Your task to perform on an android device: open app "Reddit" (install if not already installed) and go to login screen Image 0: 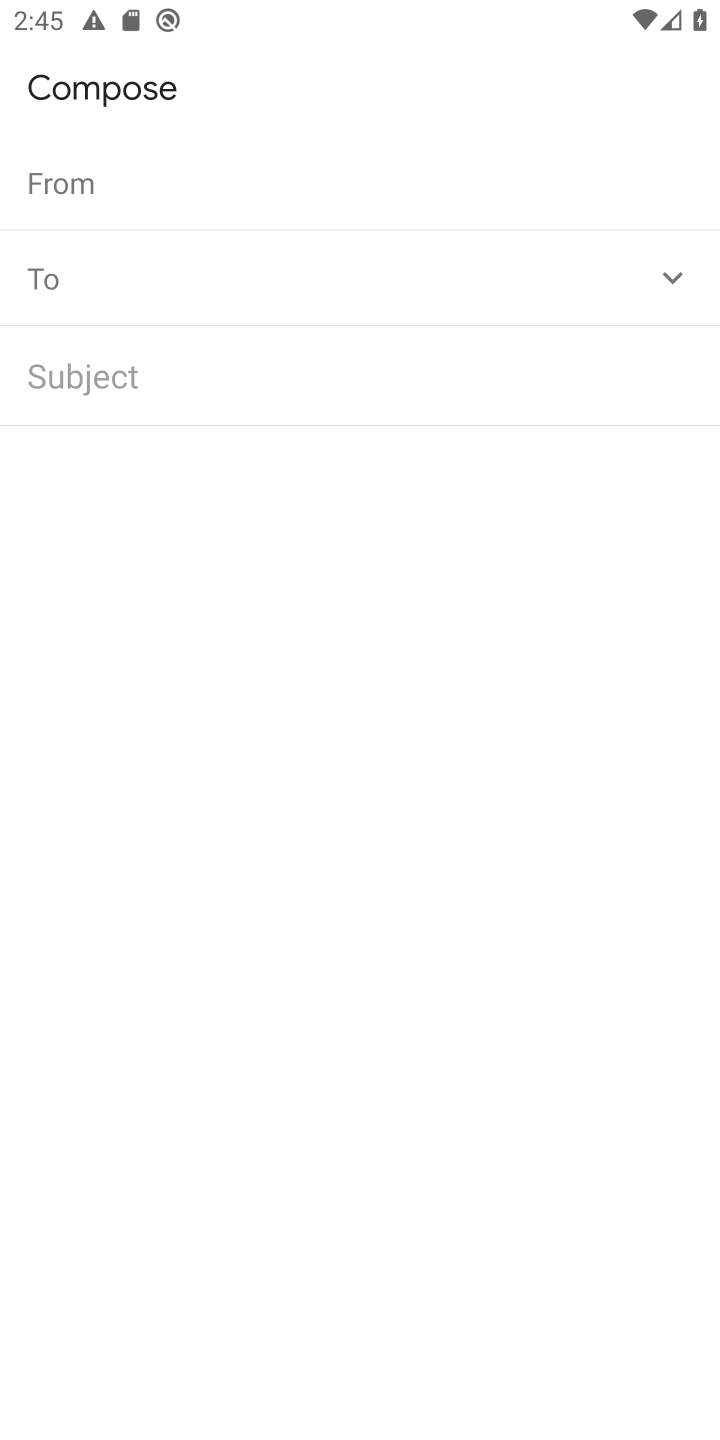
Step 0: click (519, 90)
Your task to perform on an android device: open app "Reddit" (install if not already installed) and go to login screen Image 1: 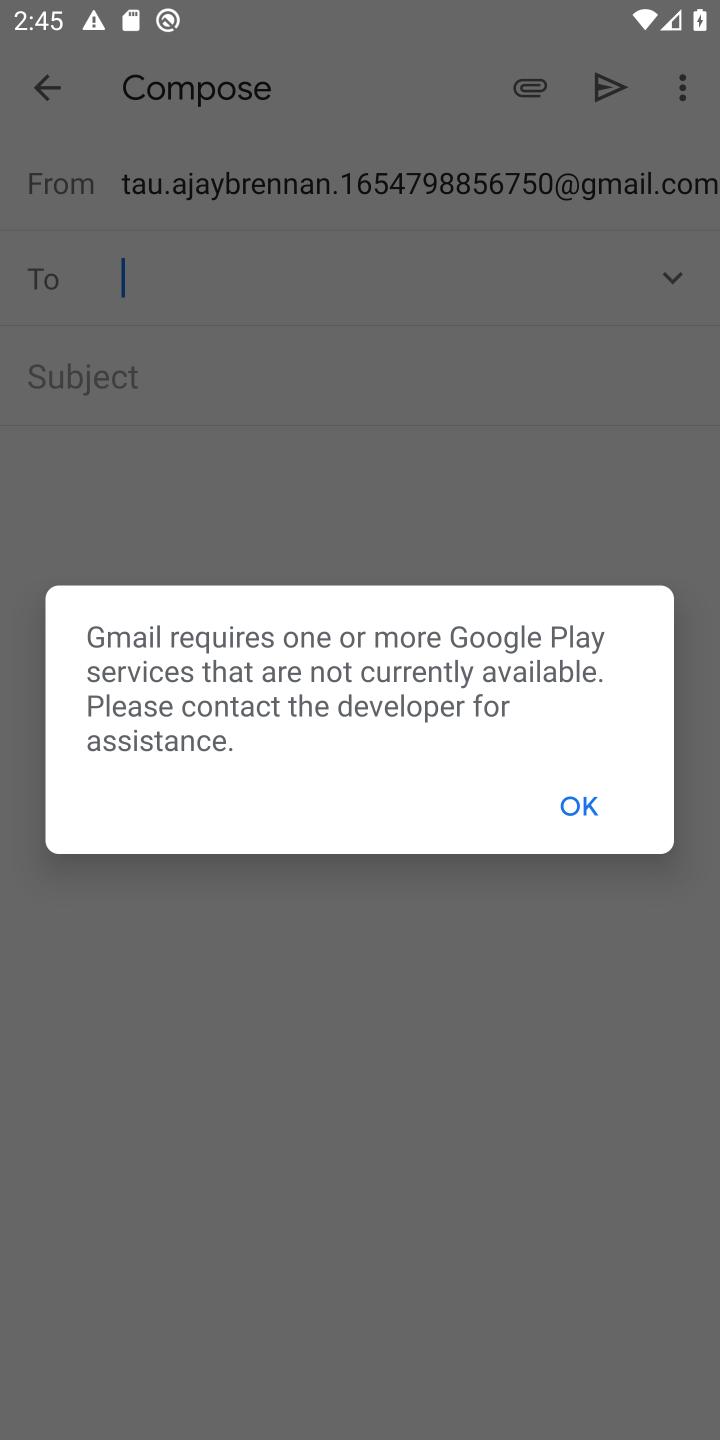
Step 1: press home button
Your task to perform on an android device: open app "Reddit" (install if not already installed) and go to login screen Image 2: 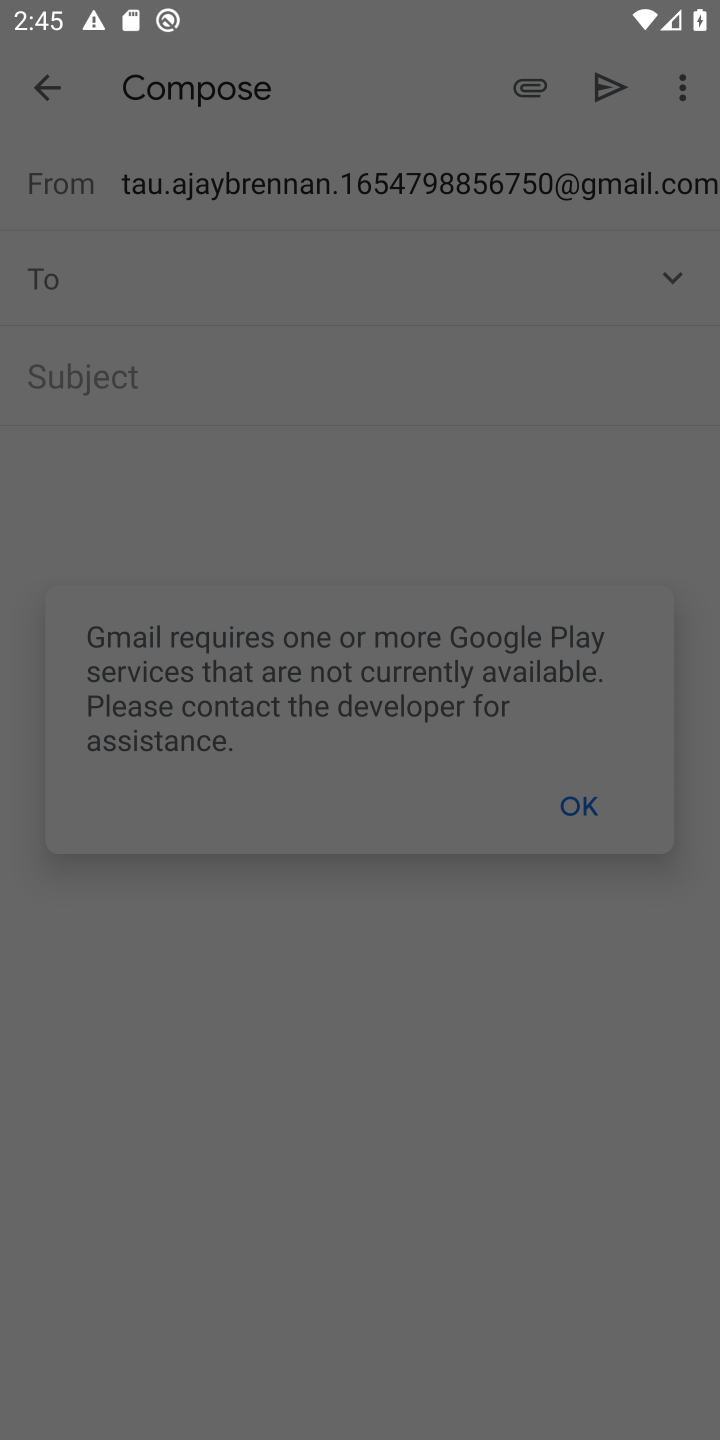
Step 2: press home button
Your task to perform on an android device: open app "Reddit" (install if not already installed) and go to login screen Image 3: 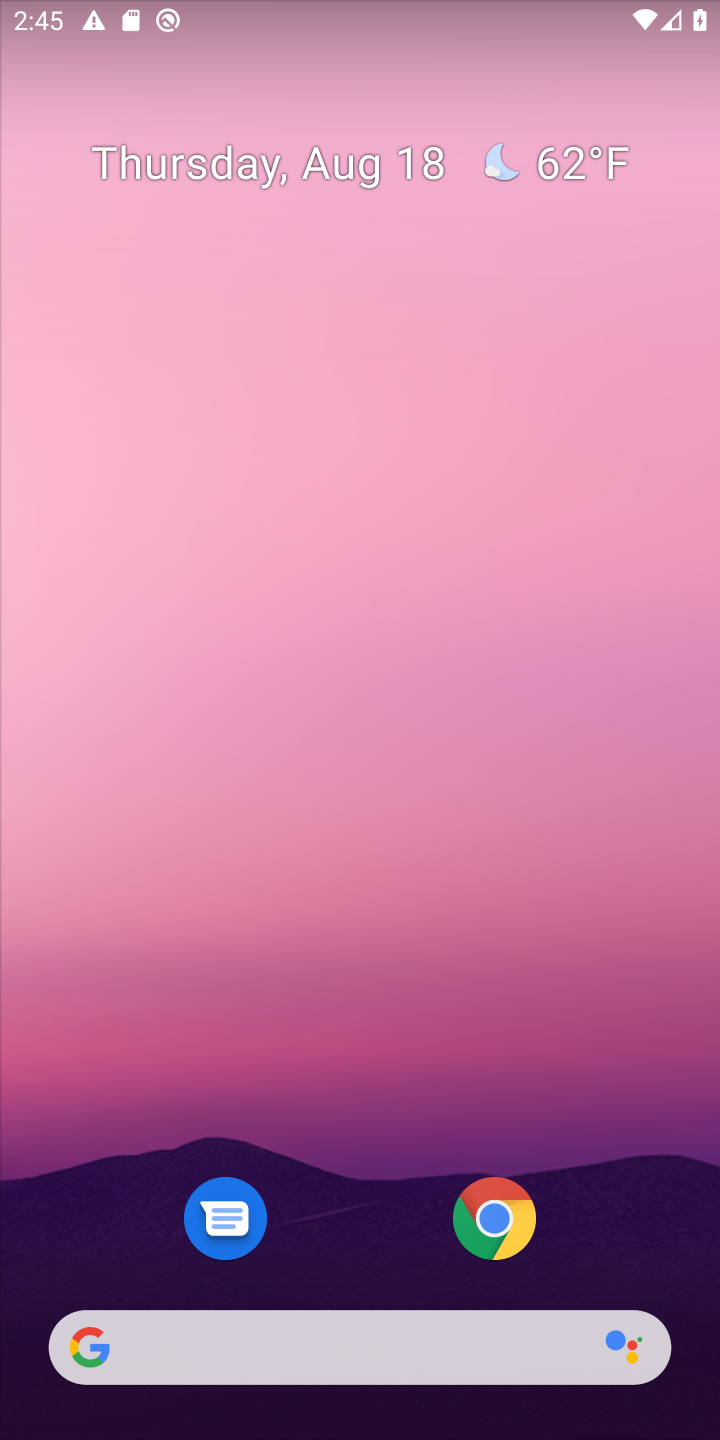
Step 3: drag from (385, 1063) to (430, 364)
Your task to perform on an android device: open app "Reddit" (install if not already installed) and go to login screen Image 4: 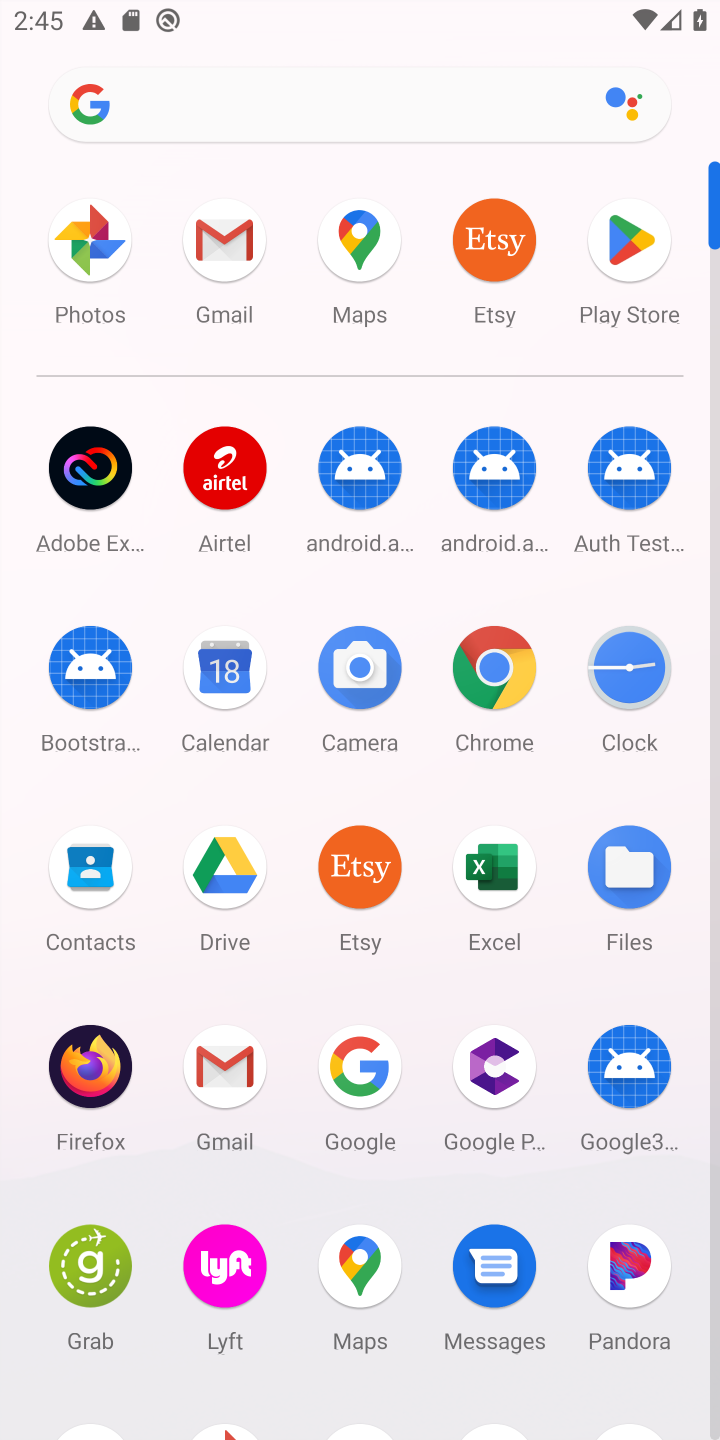
Step 4: click (627, 230)
Your task to perform on an android device: open app "Reddit" (install if not already installed) and go to login screen Image 5: 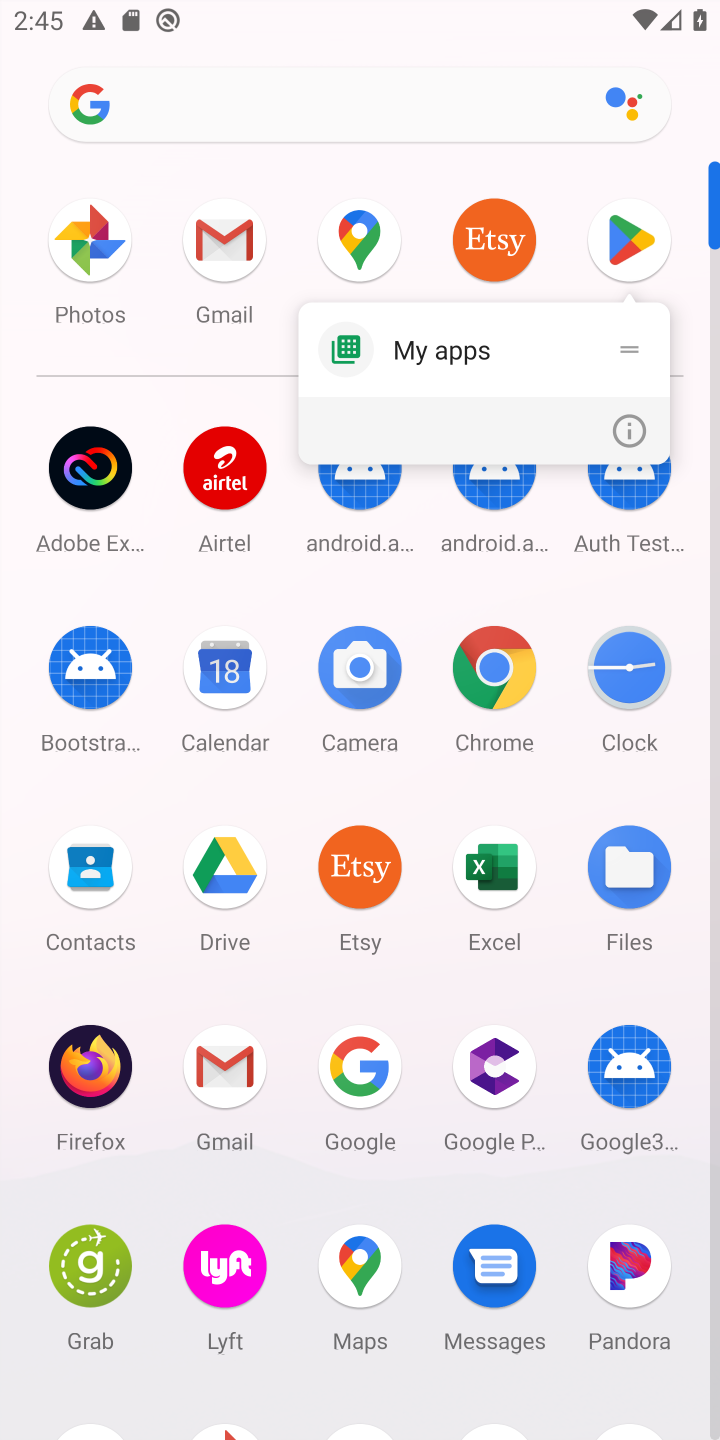
Step 5: click (627, 230)
Your task to perform on an android device: open app "Reddit" (install if not already installed) and go to login screen Image 6: 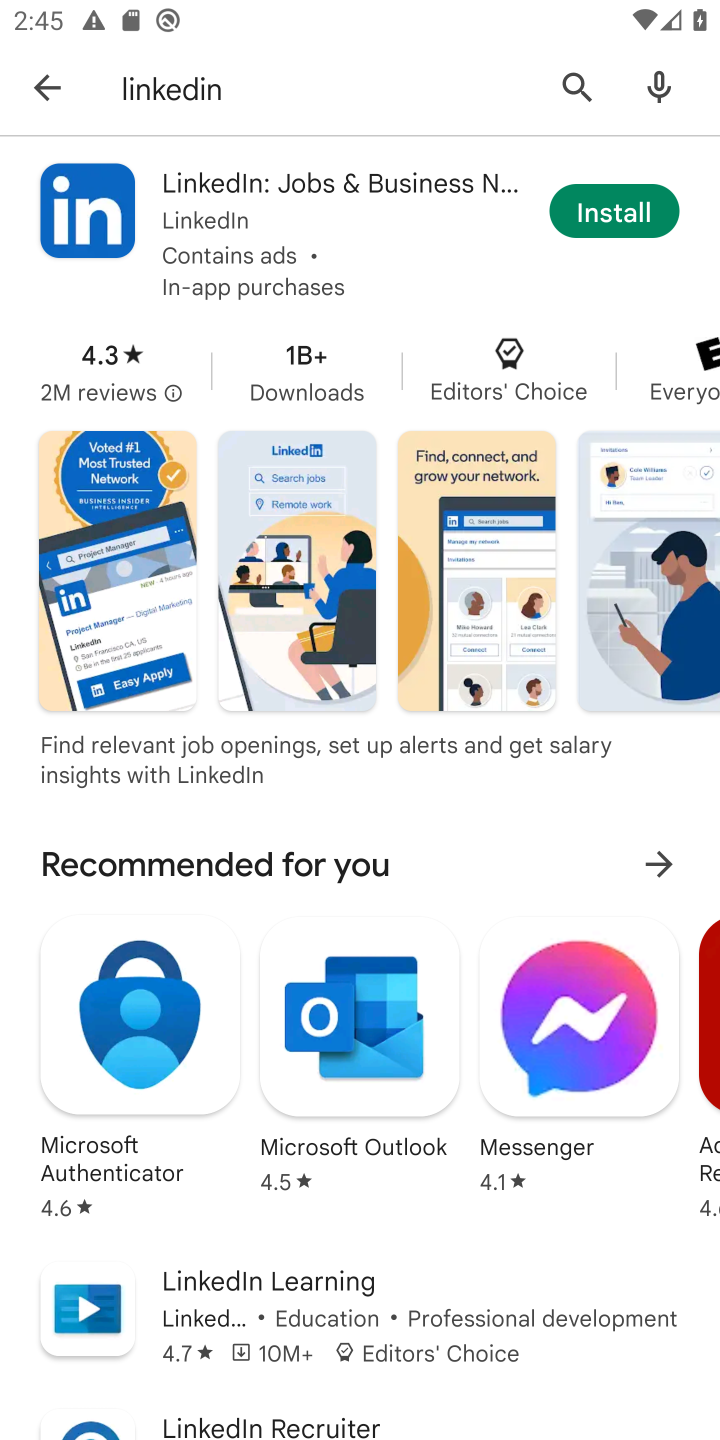
Step 6: click (575, 79)
Your task to perform on an android device: open app "Reddit" (install if not already installed) and go to login screen Image 7: 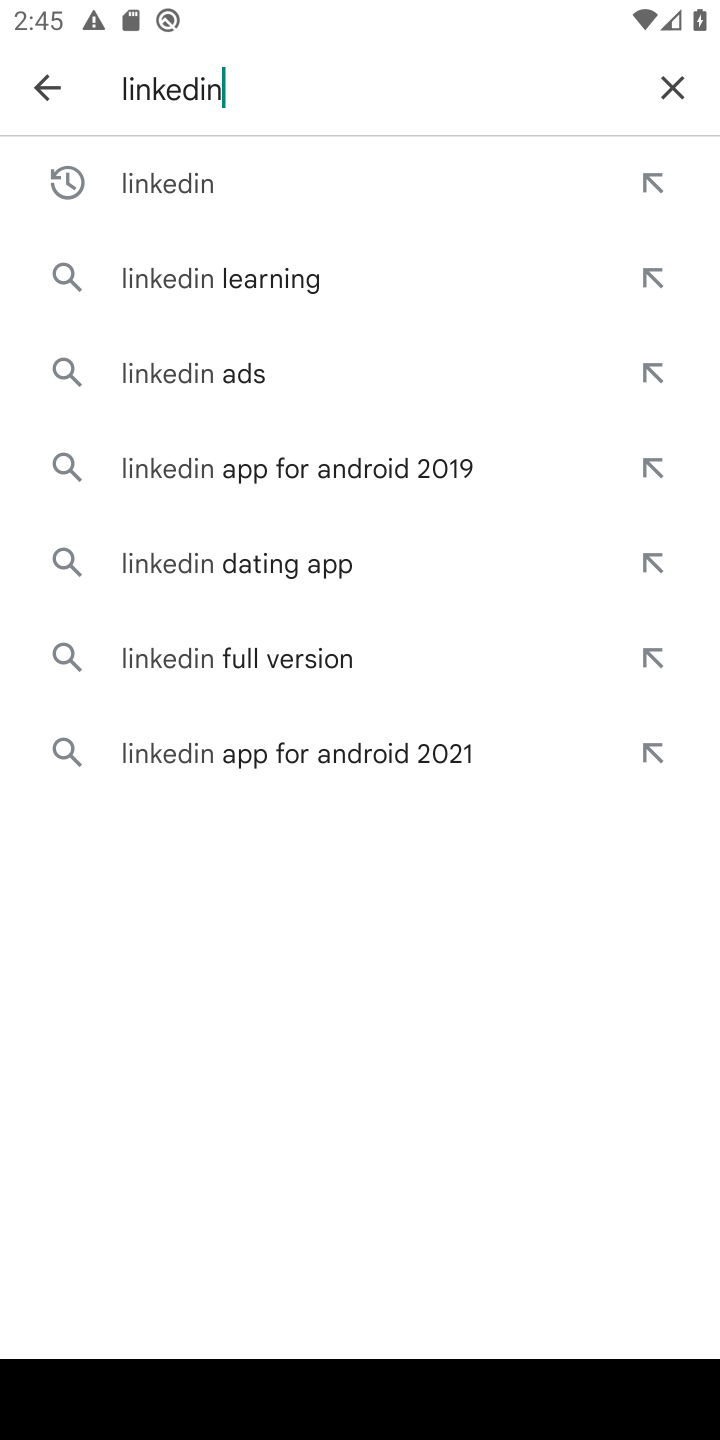
Step 7: click (657, 95)
Your task to perform on an android device: open app "Reddit" (install if not already installed) and go to login screen Image 8: 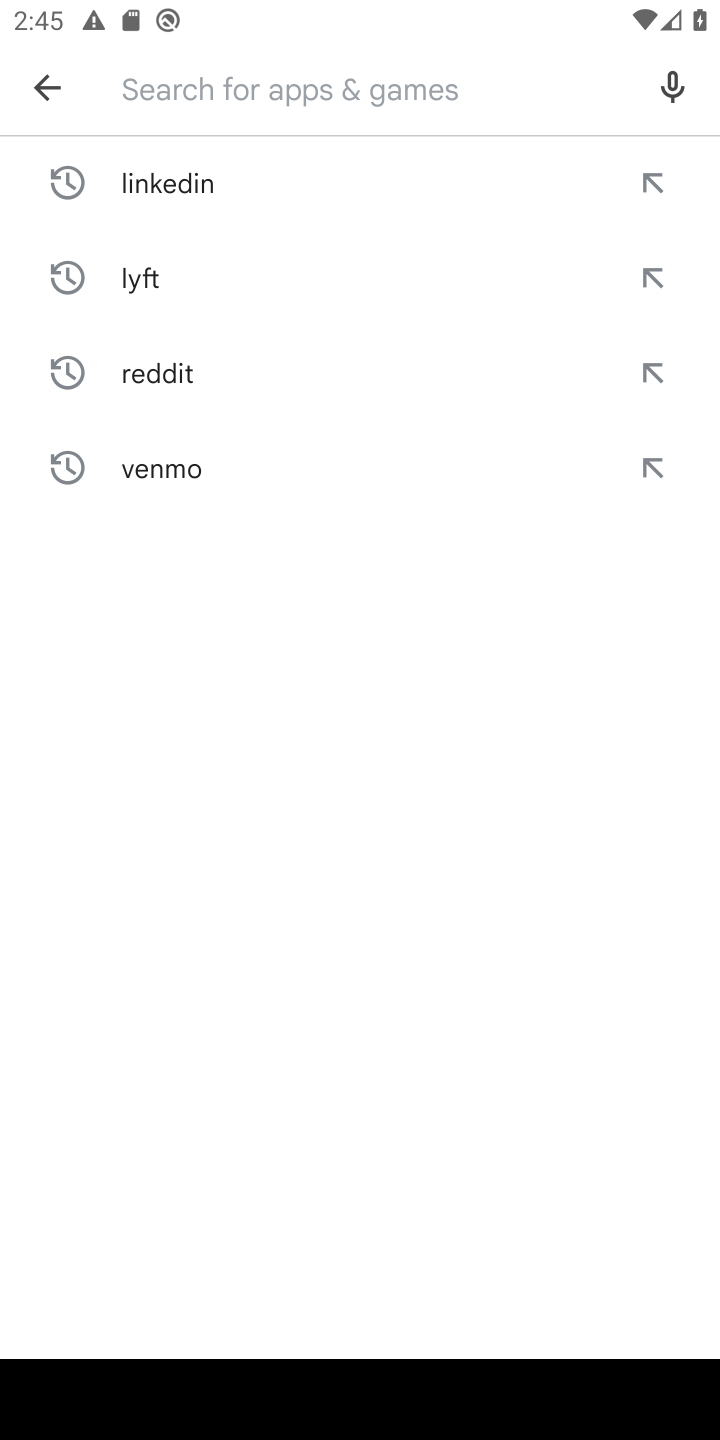
Step 8: type "Reddit"
Your task to perform on an android device: open app "Reddit" (install if not already installed) and go to login screen Image 9: 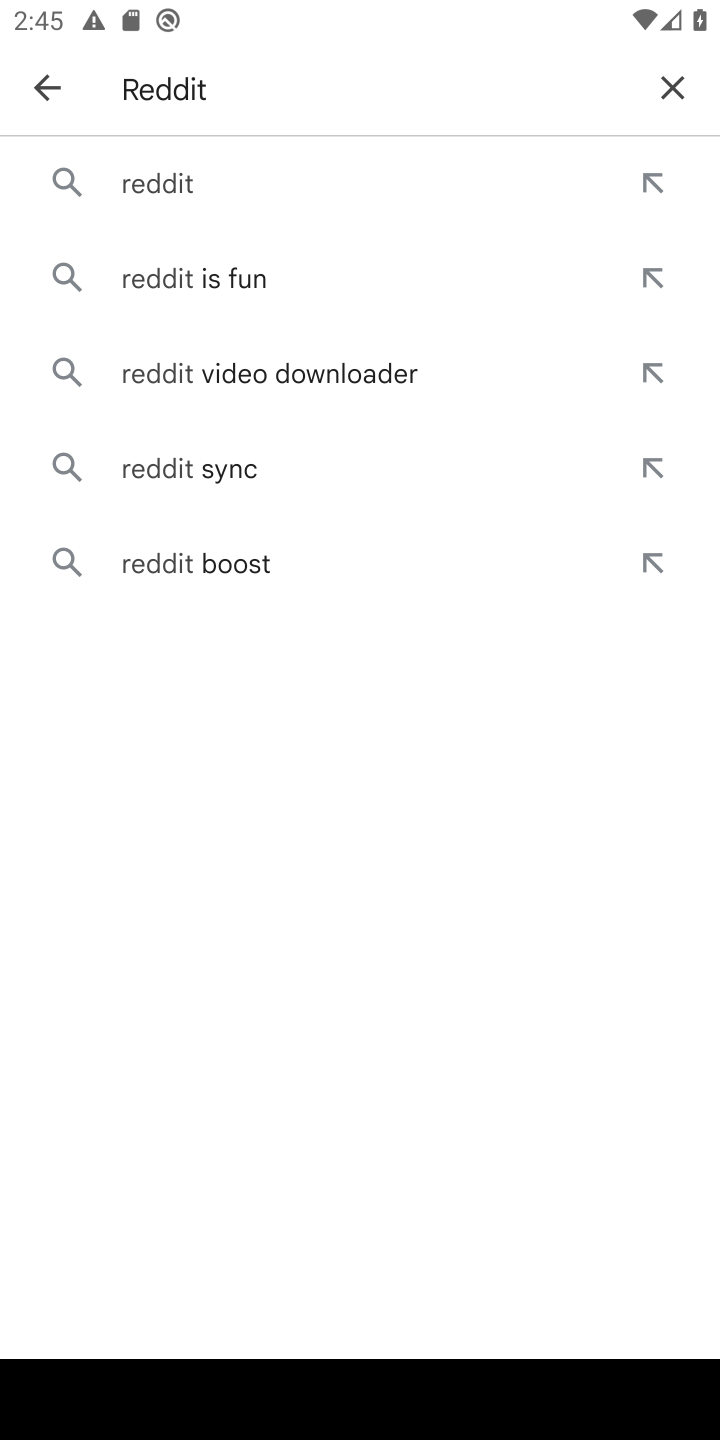
Step 9: click (195, 193)
Your task to perform on an android device: open app "Reddit" (install if not already installed) and go to login screen Image 10: 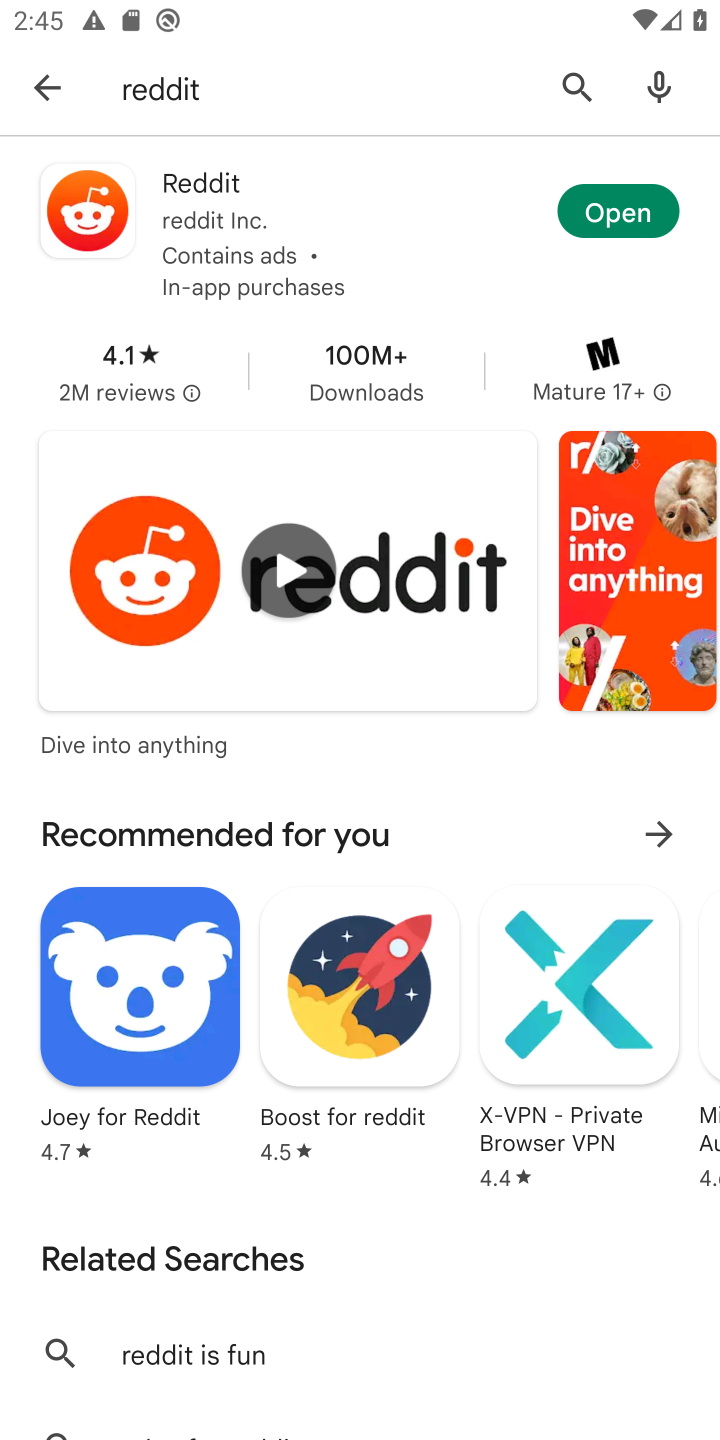
Step 10: click (598, 214)
Your task to perform on an android device: open app "Reddit" (install if not already installed) and go to login screen Image 11: 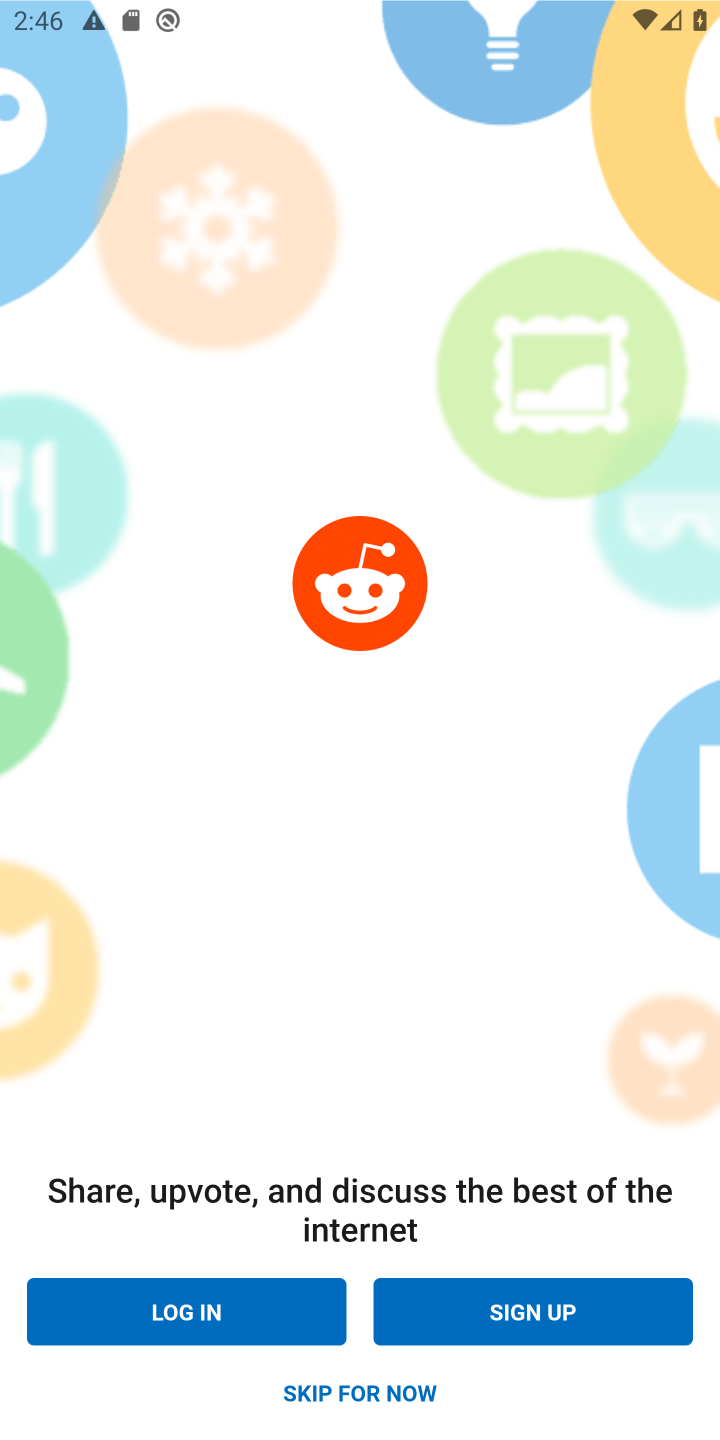
Step 11: task complete